Your task to perform on an android device: See recent photos Image 0: 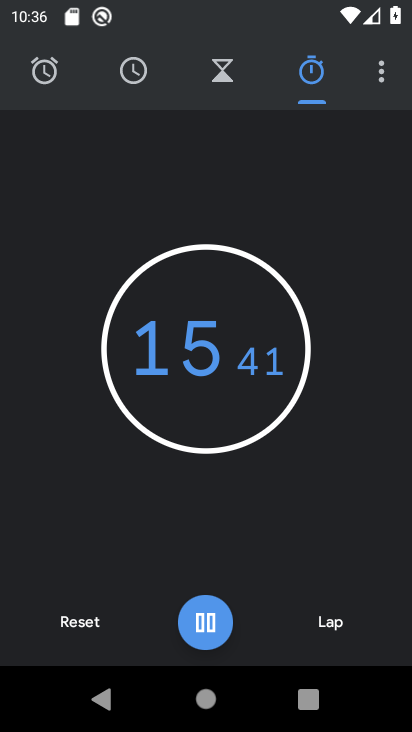
Step 0: task complete